Your task to perform on an android device: change timer sound Image 0: 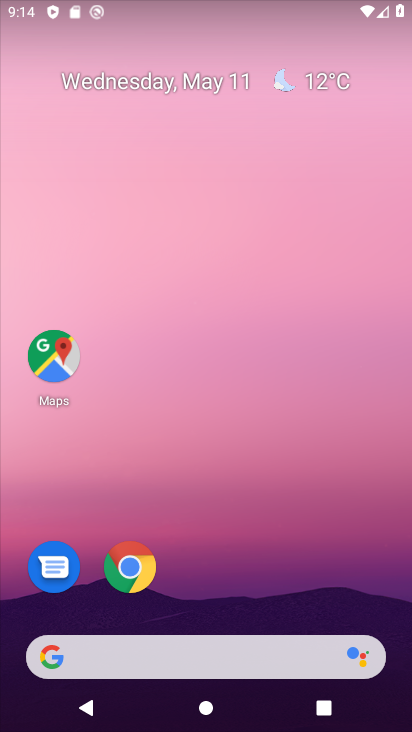
Step 0: drag from (182, 590) to (60, 72)
Your task to perform on an android device: change timer sound Image 1: 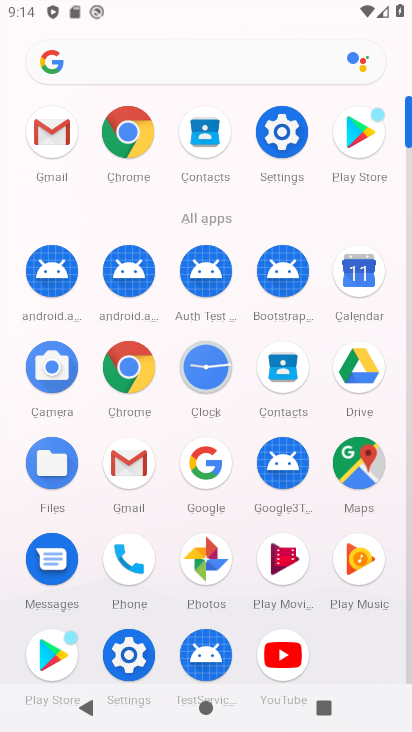
Step 1: click (120, 665)
Your task to perform on an android device: change timer sound Image 2: 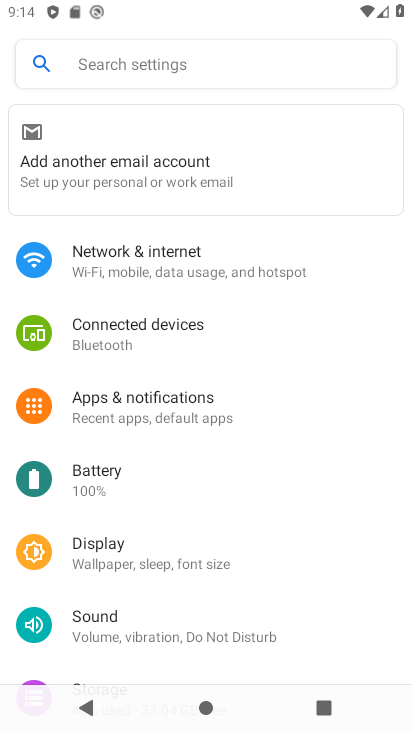
Step 2: click (218, 702)
Your task to perform on an android device: change timer sound Image 3: 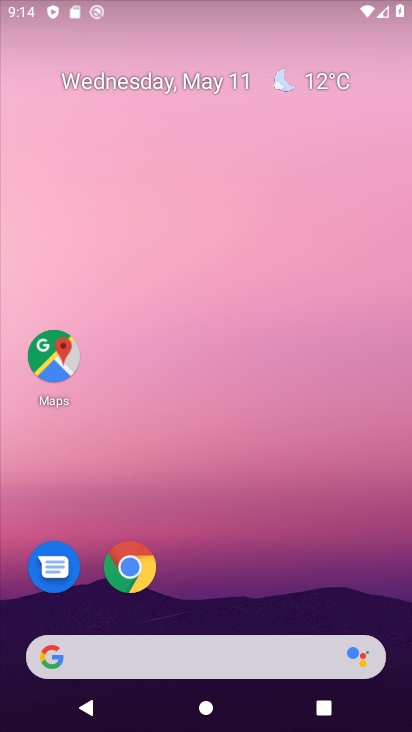
Step 3: drag from (291, 520) to (331, 130)
Your task to perform on an android device: change timer sound Image 4: 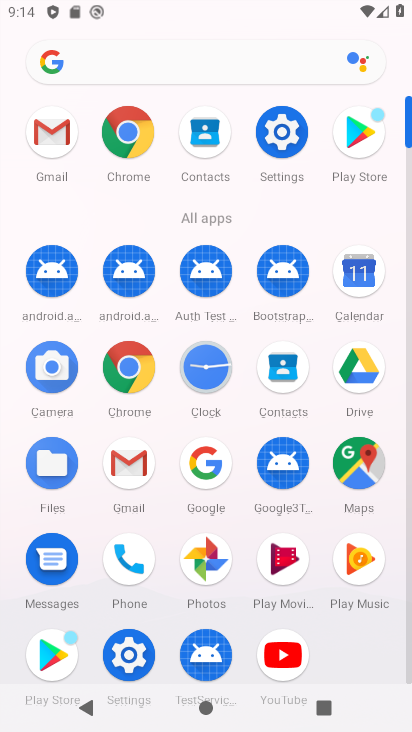
Step 4: click (199, 372)
Your task to perform on an android device: change timer sound Image 5: 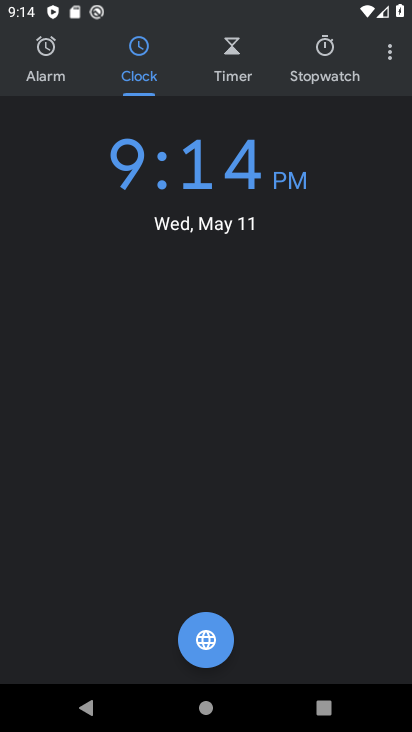
Step 5: click (388, 52)
Your task to perform on an android device: change timer sound Image 6: 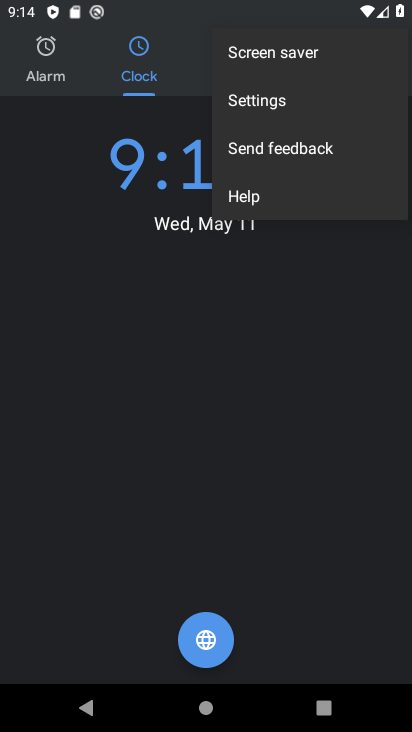
Step 6: click (302, 101)
Your task to perform on an android device: change timer sound Image 7: 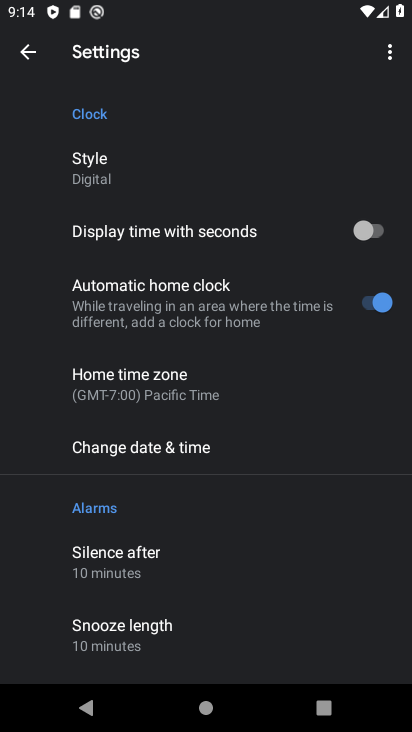
Step 7: drag from (153, 556) to (157, 334)
Your task to perform on an android device: change timer sound Image 8: 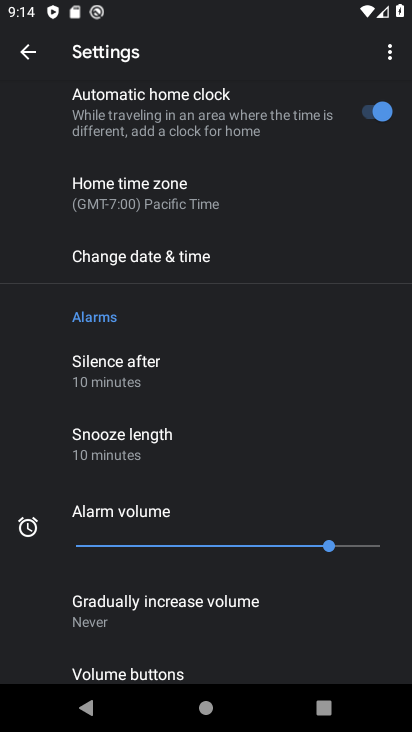
Step 8: drag from (242, 428) to (287, 115)
Your task to perform on an android device: change timer sound Image 9: 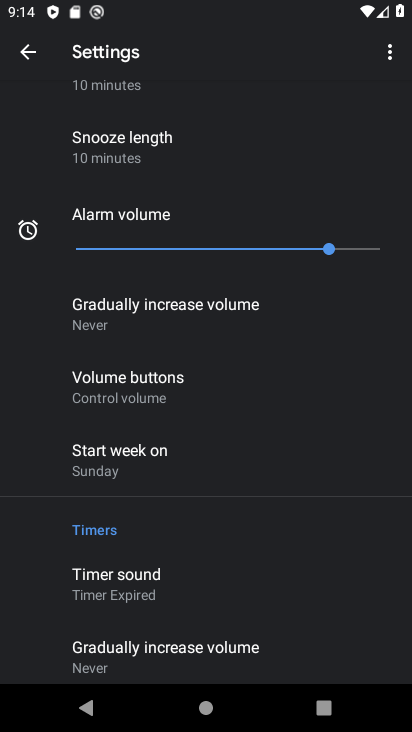
Step 9: drag from (227, 534) to (220, 246)
Your task to perform on an android device: change timer sound Image 10: 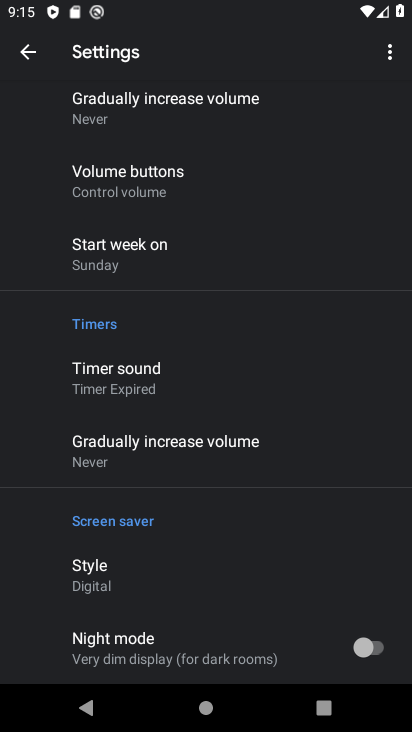
Step 10: click (110, 386)
Your task to perform on an android device: change timer sound Image 11: 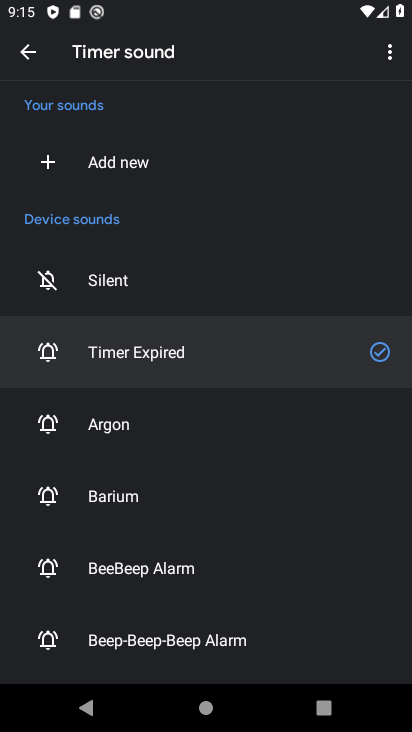
Step 11: click (113, 436)
Your task to perform on an android device: change timer sound Image 12: 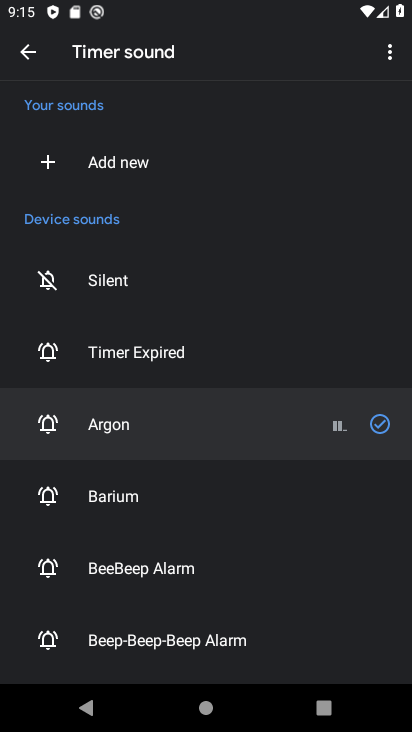
Step 12: task complete